Your task to perform on an android device: Open calendar and show me the second week of next month Image 0: 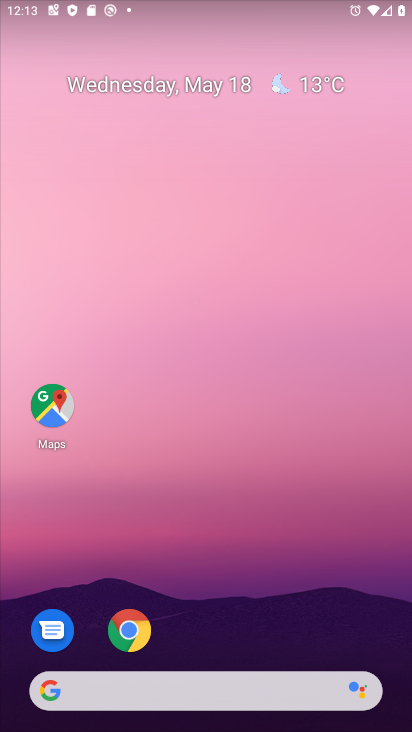
Step 0: drag from (220, 708) to (227, 155)
Your task to perform on an android device: Open calendar and show me the second week of next month Image 1: 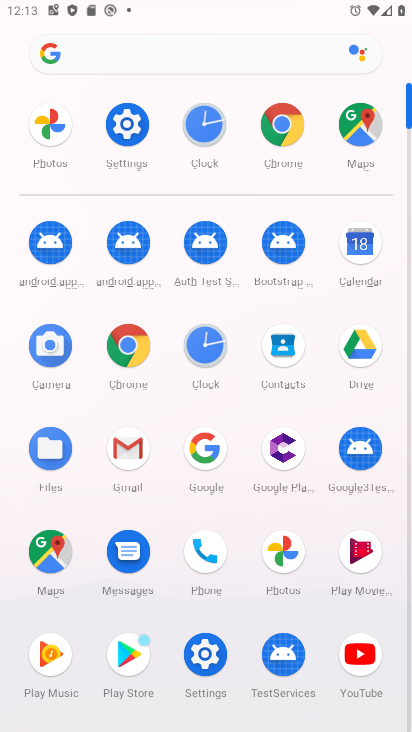
Step 1: click (367, 253)
Your task to perform on an android device: Open calendar and show me the second week of next month Image 2: 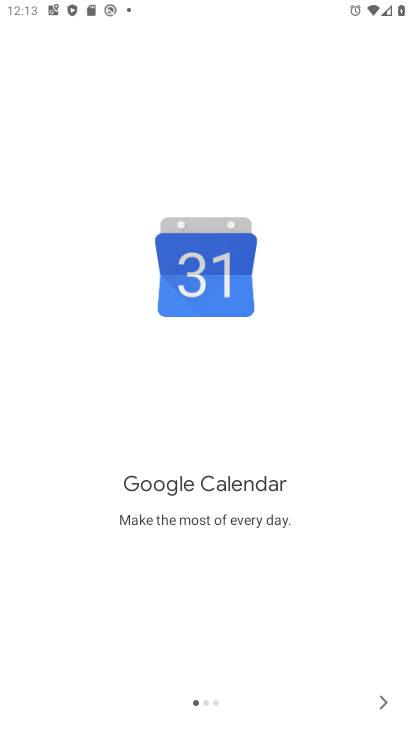
Step 2: click (381, 709)
Your task to perform on an android device: Open calendar and show me the second week of next month Image 3: 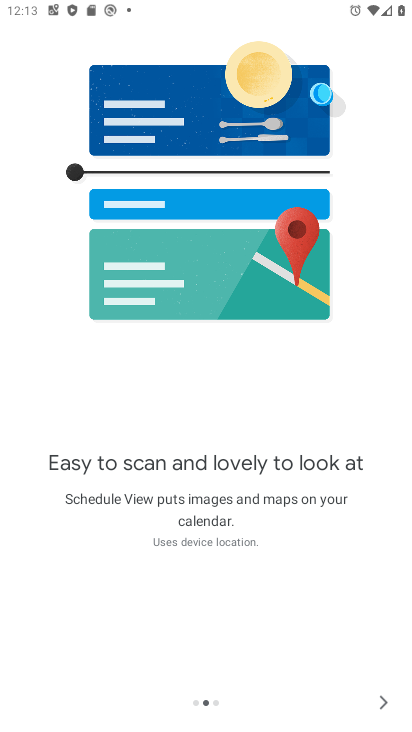
Step 3: click (388, 697)
Your task to perform on an android device: Open calendar and show me the second week of next month Image 4: 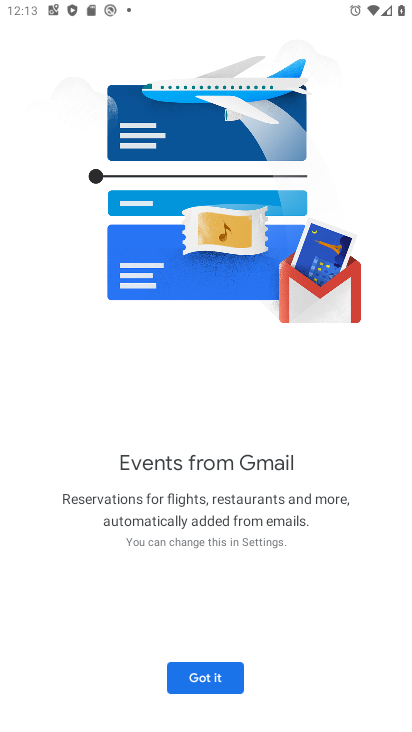
Step 4: click (212, 676)
Your task to perform on an android device: Open calendar and show me the second week of next month Image 5: 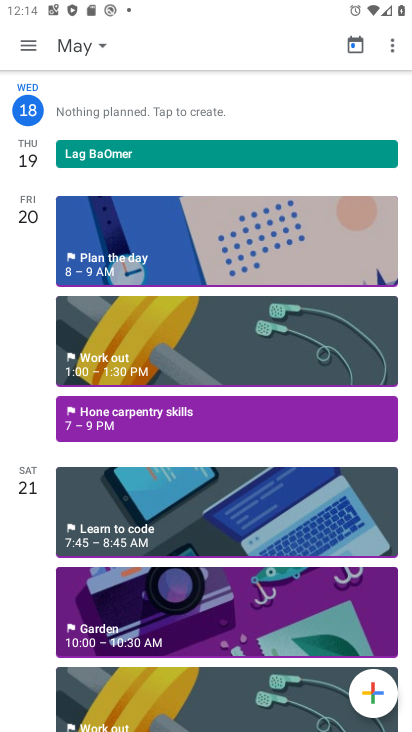
Step 5: click (106, 41)
Your task to perform on an android device: Open calendar and show me the second week of next month Image 6: 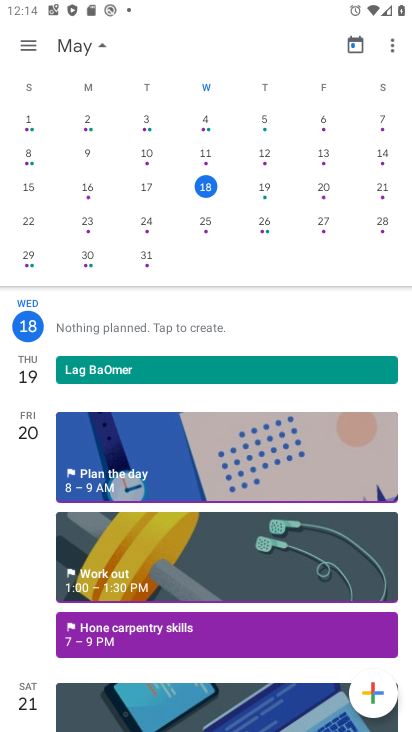
Step 6: drag from (373, 180) to (11, 153)
Your task to perform on an android device: Open calendar and show me the second week of next month Image 7: 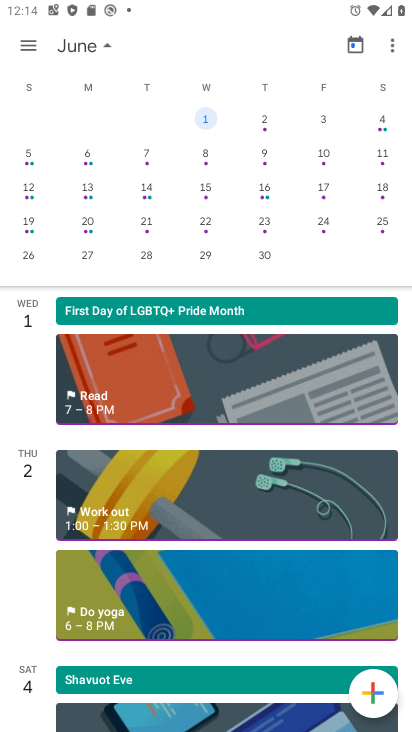
Step 7: click (86, 178)
Your task to perform on an android device: Open calendar and show me the second week of next month Image 8: 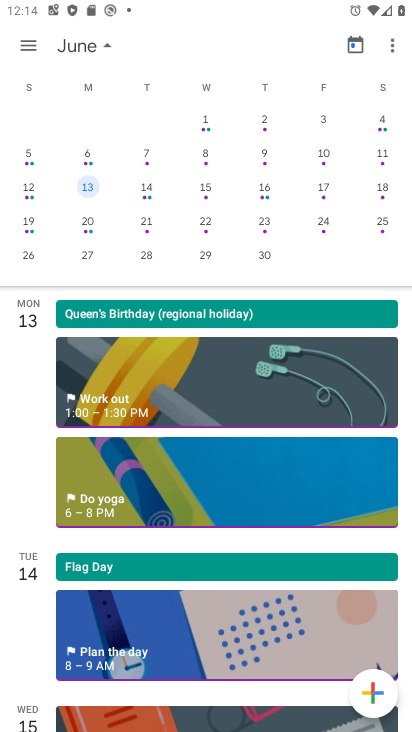
Step 8: click (91, 183)
Your task to perform on an android device: Open calendar and show me the second week of next month Image 9: 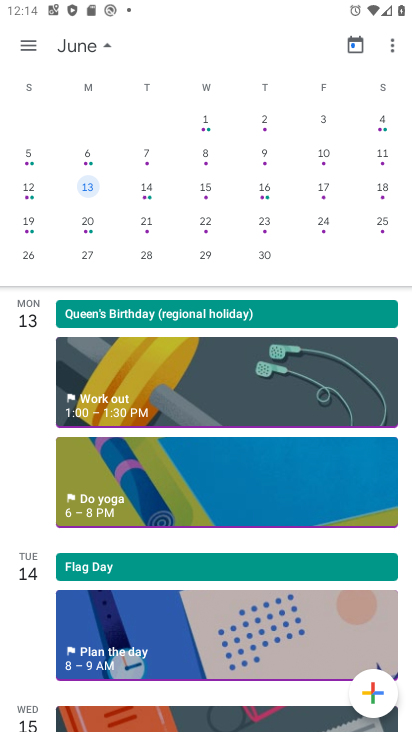
Step 9: click (27, 43)
Your task to perform on an android device: Open calendar and show me the second week of next month Image 10: 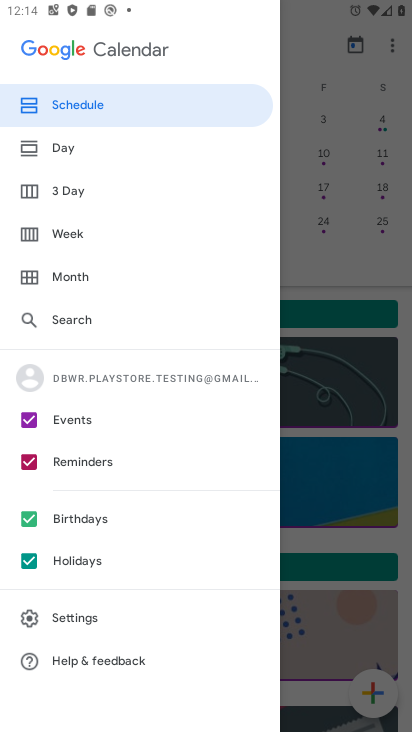
Step 10: click (62, 236)
Your task to perform on an android device: Open calendar and show me the second week of next month Image 11: 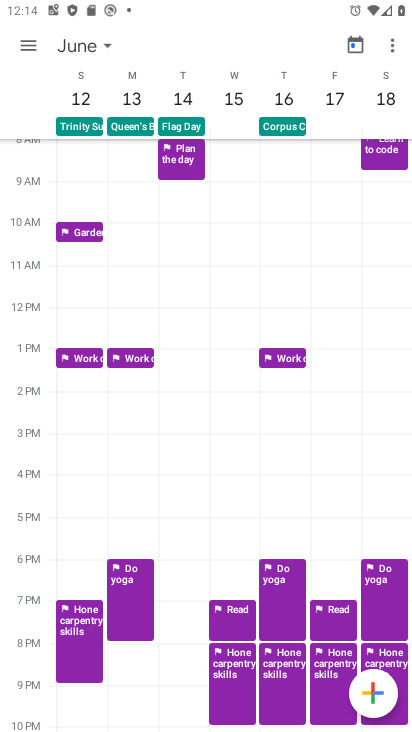
Step 11: task complete